Your task to perform on an android device: turn off translation in the chrome app Image 0: 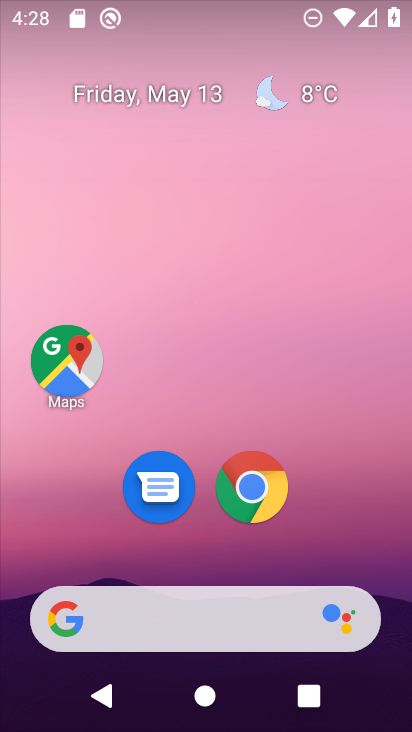
Step 0: click (267, 504)
Your task to perform on an android device: turn off translation in the chrome app Image 1: 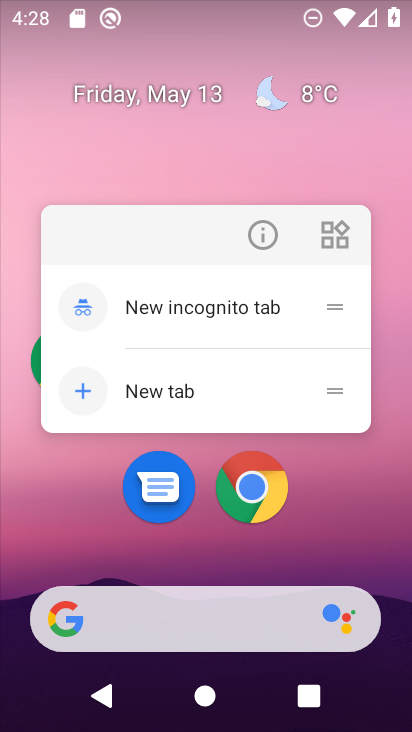
Step 1: click (267, 504)
Your task to perform on an android device: turn off translation in the chrome app Image 2: 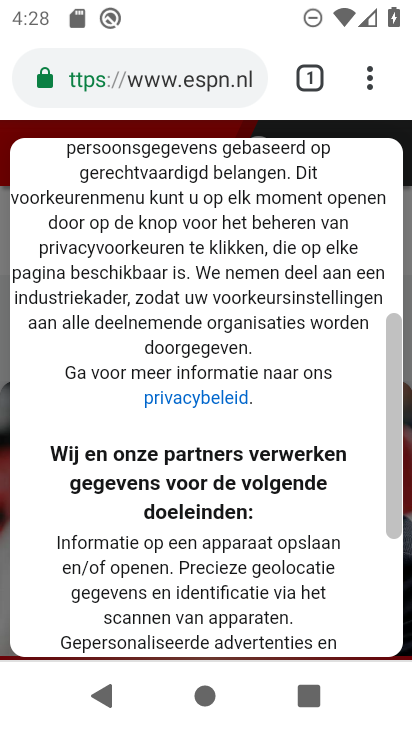
Step 2: click (367, 96)
Your task to perform on an android device: turn off translation in the chrome app Image 3: 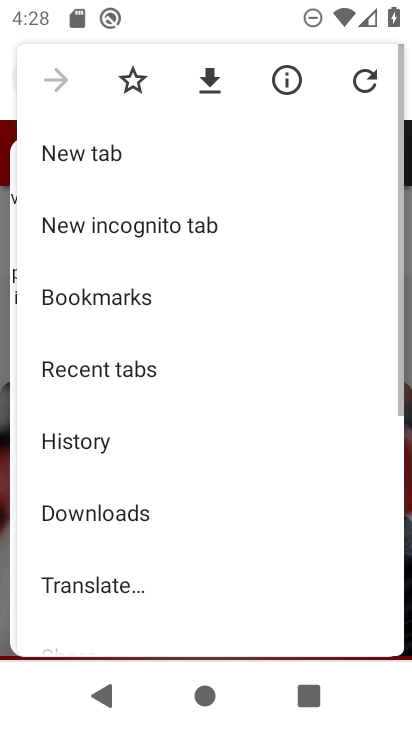
Step 3: drag from (227, 521) to (249, 387)
Your task to perform on an android device: turn off translation in the chrome app Image 4: 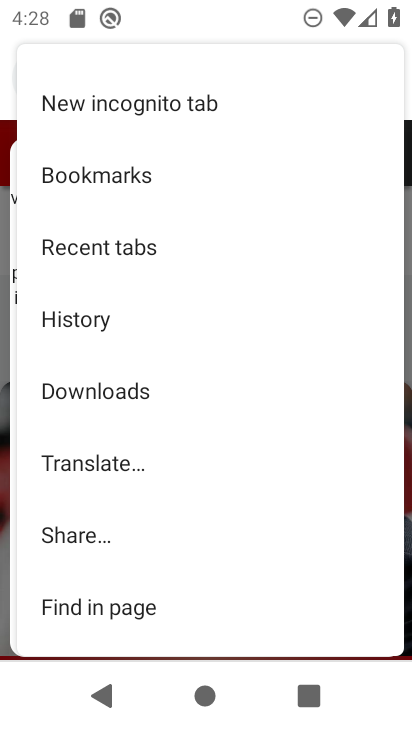
Step 4: drag from (179, 581) to (212, 414)
Your task to perform on an android device: turn off translation in the chrome app Image 5: 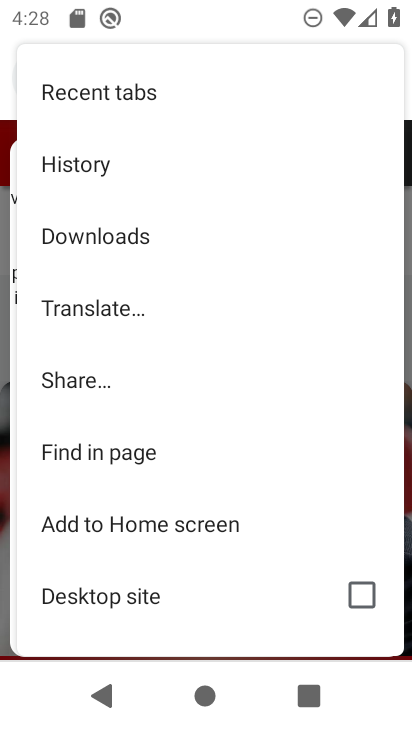
Step 5: drag from (161, 575) to (201, 353)
Your task to perform on an android device: turn off translation in the chrome app Image 6: 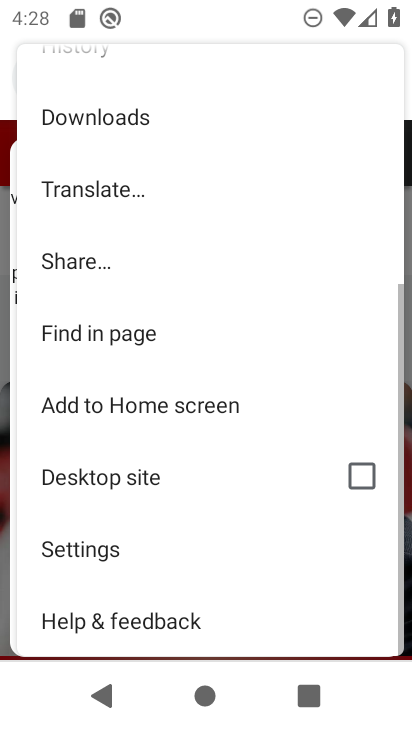
Step 6: click (139, 534)
Your task to perform on an android device: turn off translation in the chrome app Image 7: 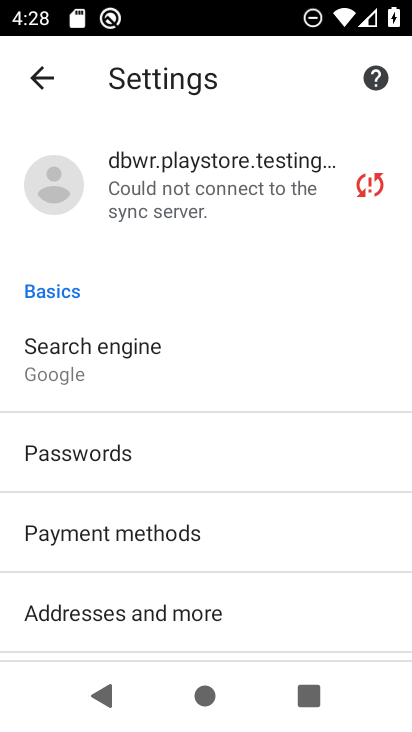
Step 7: drag from (170, 558) to (338, 37)
Your task to perform on an android device: turn off translation in the chrome app Image 8: 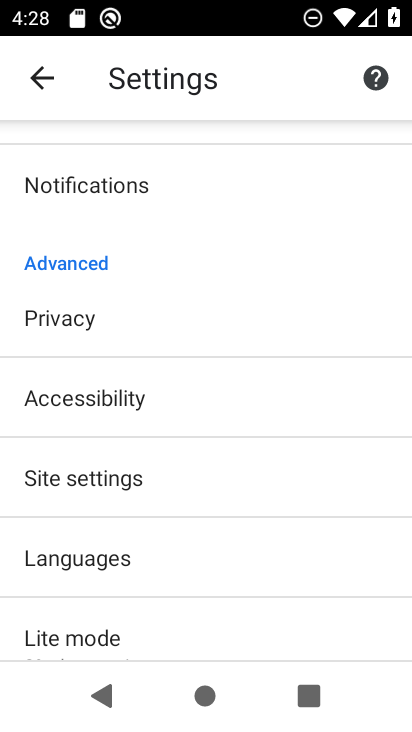
Step 8: click (197, 535)
Your task to perform on an android device: turn off translation in the chrome app Image 9: 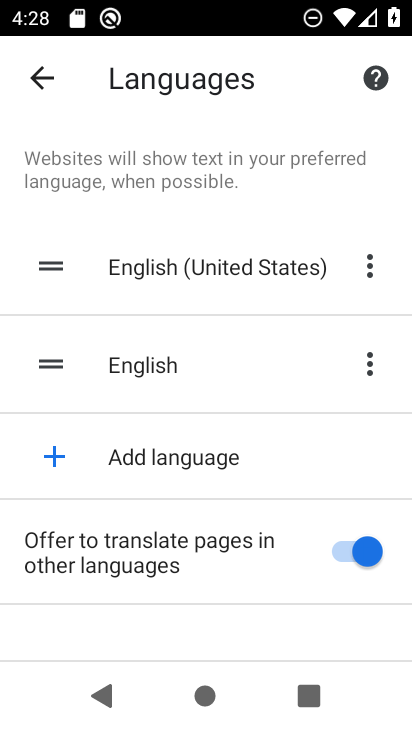
Step 9: click (324, 541)
Your task to perform on an android device: turn off translation in the chrome app Image 10: 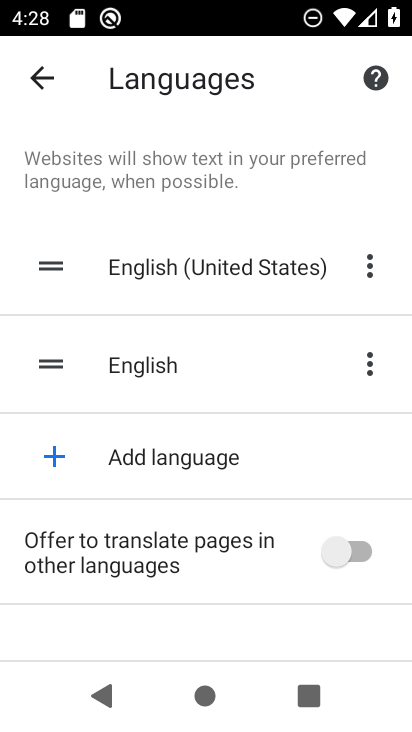
Step 10: task complete